Your task to perform on an android device: Open calendar and show me the fourth week of next month Image 0: 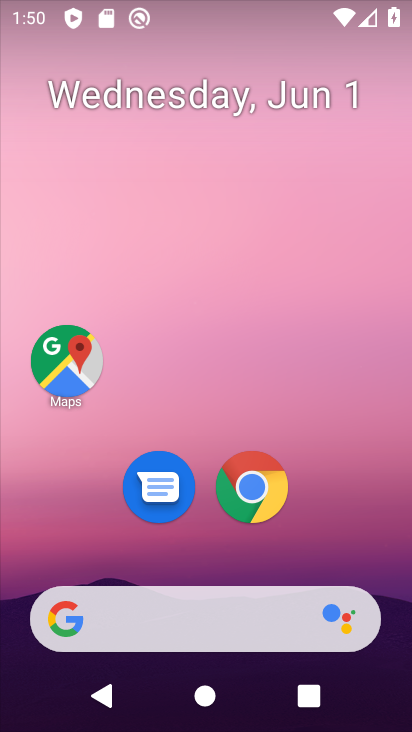
Step 0: drag from (342, 470) to (364, 118)
Your task to perform on an android device: Open calendar and show me the fourth week of next month Image 1: 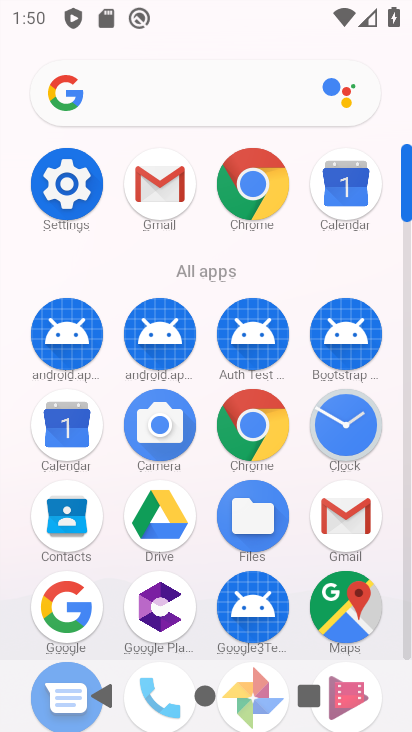
Step 1: click (79, 451)
Your task to perform on an android device: Open calendar and show me the fourth week of next month Image 2: 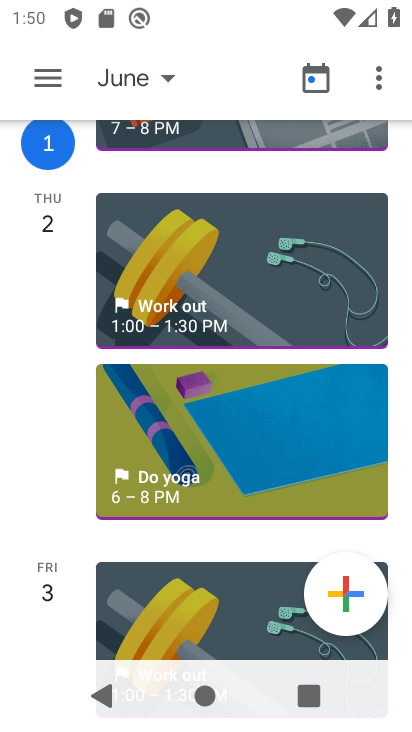
Step 2: click (171, 87)
Your task to perform on an android device: Open calendar and show me the fourth week of next month Image 3: 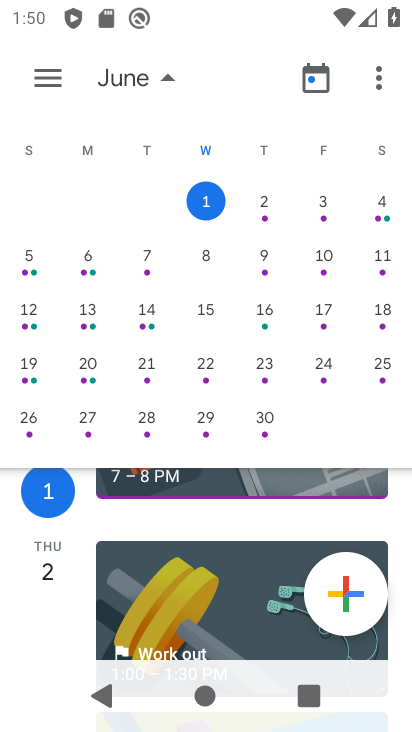
Step 3: drag from (390, 173) to (19, 203)
Your task to perform on an android device: Open calendar and show me the fourth week of next month Image 4: 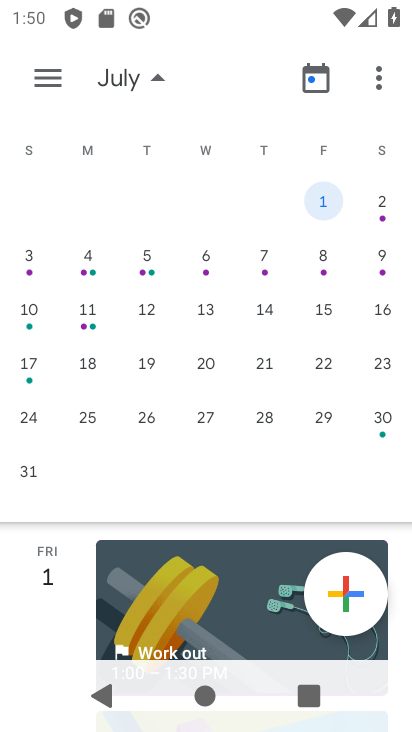
Step 4: click (93, 370)
Your task to perform on an android device: Open calendar and show me the fourth week of next month Image 5: 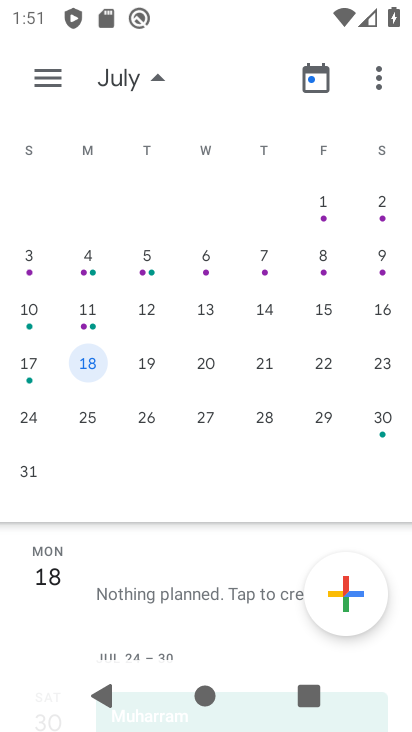
Step 5: task complete